Your task to perform on an android device: see creations saved in the google photos Image 0: 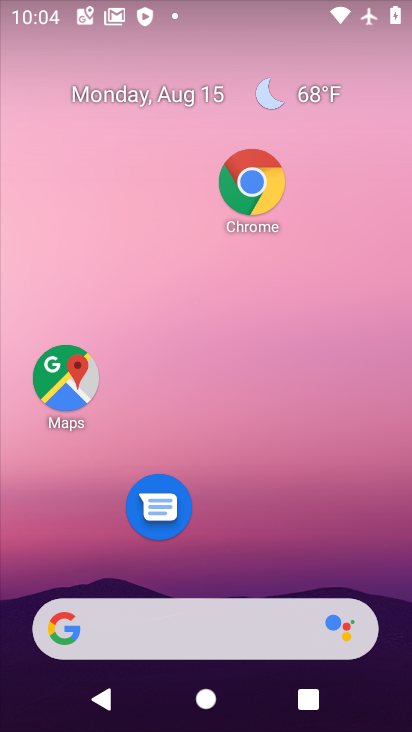
Step 0: drag from (247, 585) to (270, 176)
Your task to perform on an android device: see creations saved in the google photos Image 1: 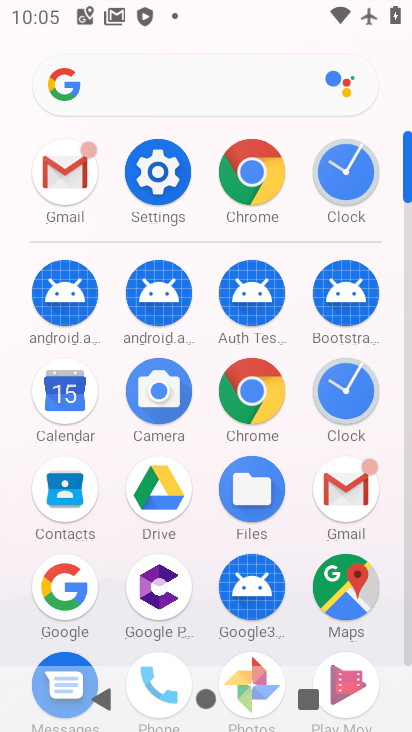
Step 1: click (245, 660)
Your task to perform on an android device: see creations saved in the google photos Image 2: 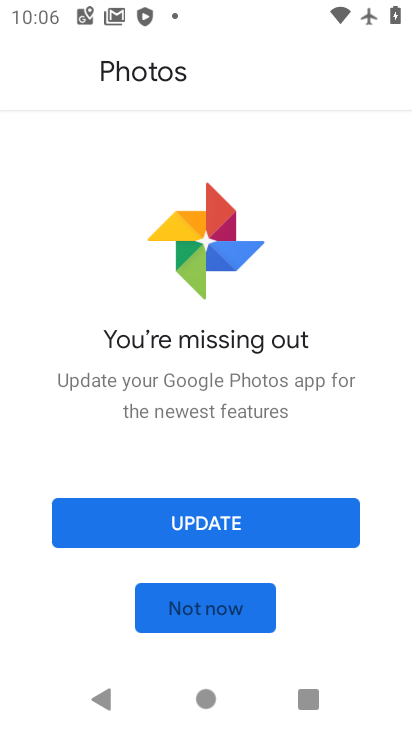
Step 2: click (214, 542)
Your task to perform on an android device: see creations saved in the google photos Image 3: 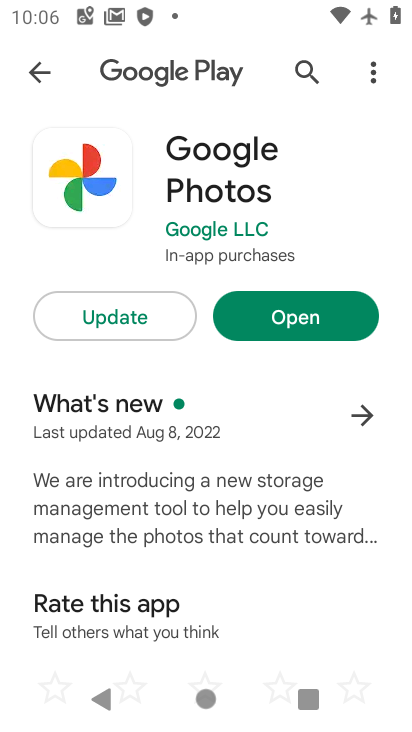
Step 3: click (142, 321)
Your task to perform on an android device: see creations saved in the google photos Image 4: 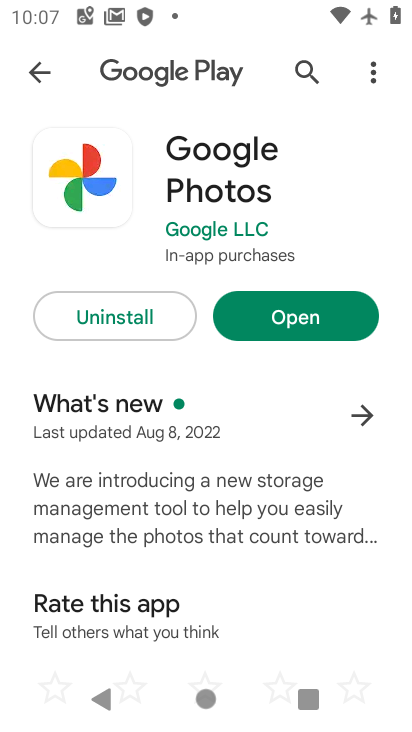
Step 4: click (266, 320)
Your task to perform on an android device: see creations saved in the google photos Image 5: 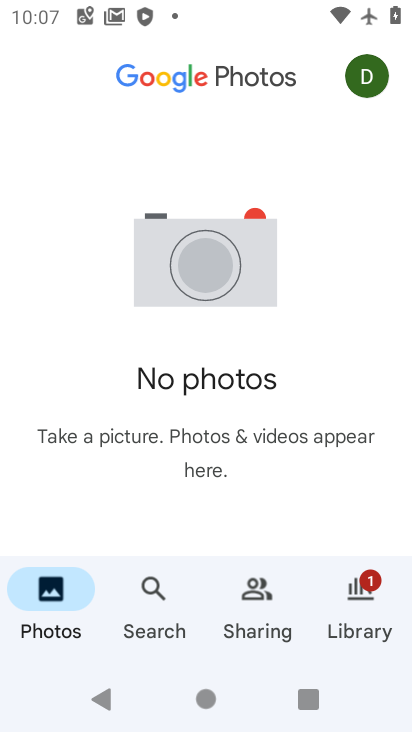
Step 5: task complete